Your task to perform on an android device: check battery use Image 0: 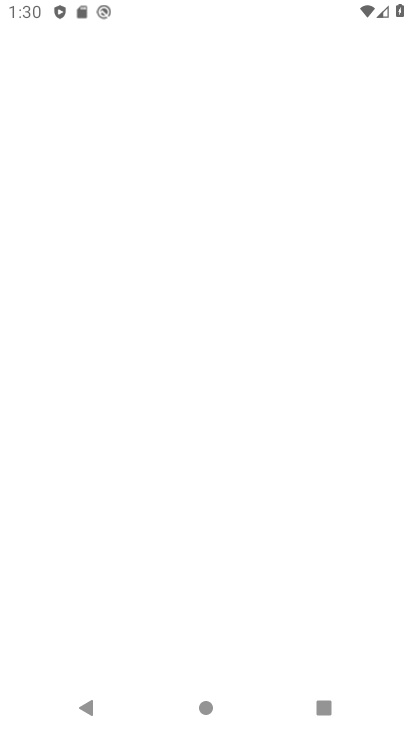
Step 0: press home button
Your task to perform on an android device: check battery use Image 1: 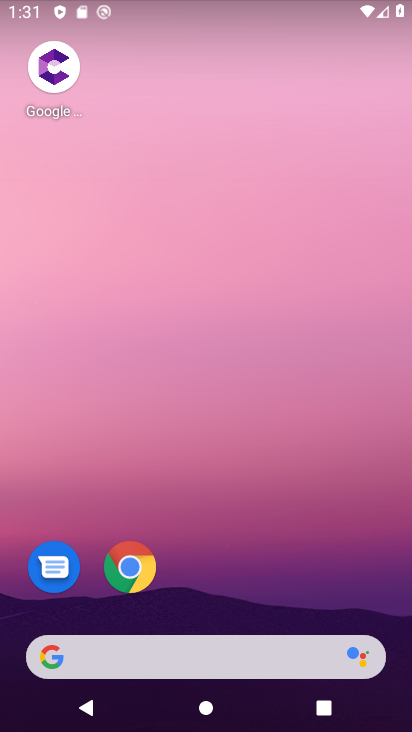
Step 1: drag from (321, 606) to (398, 119)
Your task to perform on an android device: check battery use Image 2: 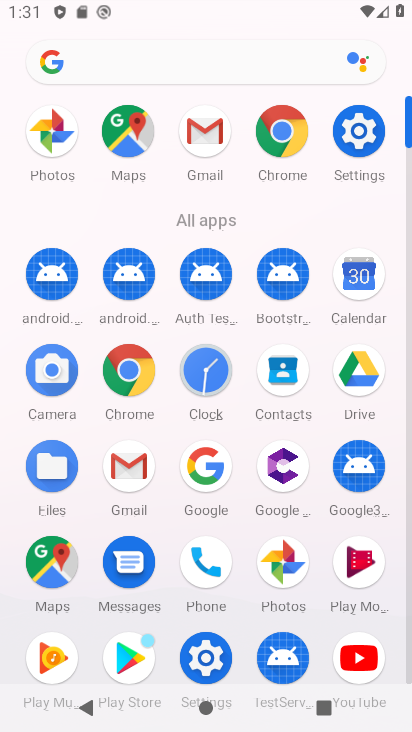
Step 2: click (374, 123)
Your task to perform on an android device: check battery use Image 3: 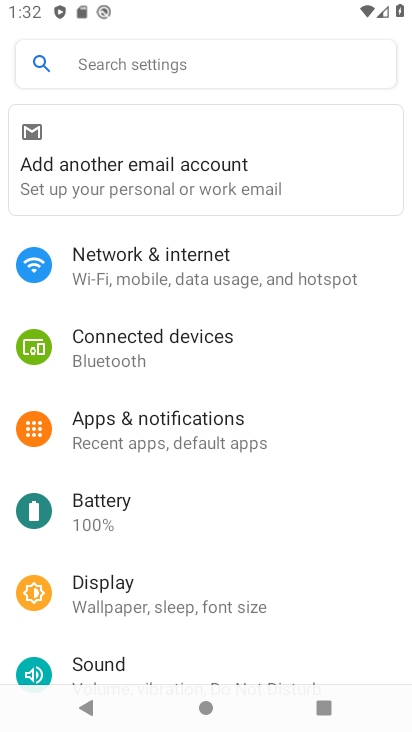
Step 3: click (90, 526)
Your task to perform on an android device: check battery use Image 4: 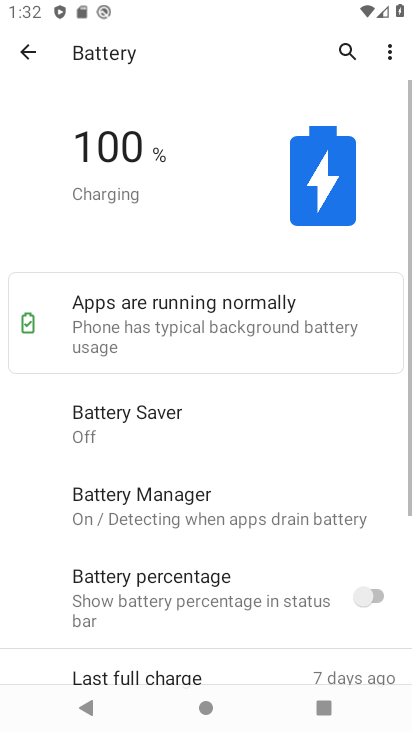
Step 4: task complete